Your task to perform on an android device: open chrome privacy settings Image 0: 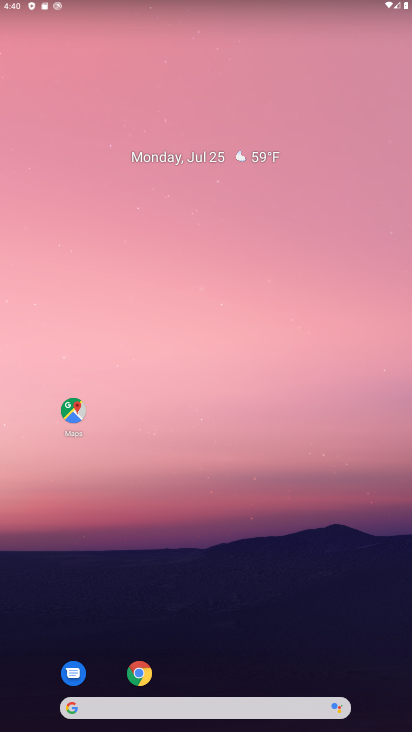
Step 0: drag from (324, 634) to (320, 154)
Your task to perform on an android device: open chrome privacy settings Image 1: 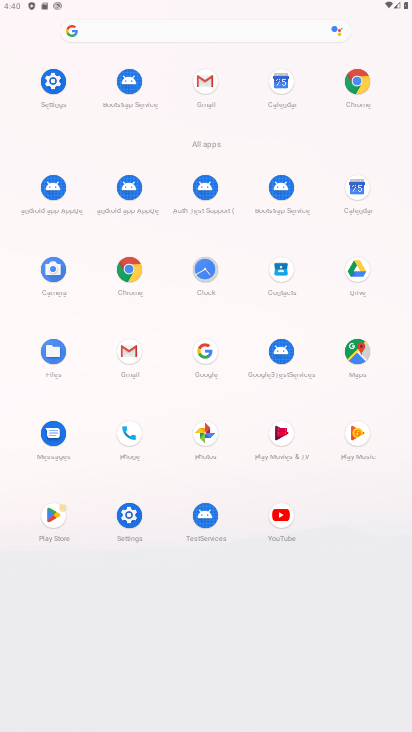
Step 1: click (124, 268)
Your task to perform on an android device: open chrome privacy settings Image 2: 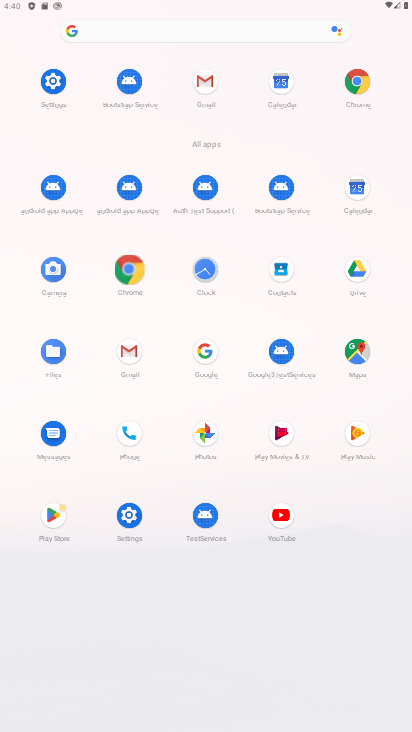
Step 2: click (127, 271)
Your task to perform on an android device: open chrome privacy settings Image 3: 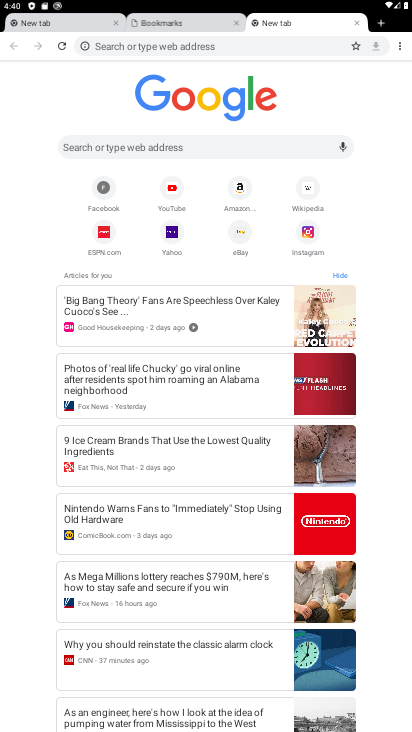
Step 3: drag from (398, 38) to (296, 218)
Your task to perform on an android device: open chrome privacy settings Image 4: 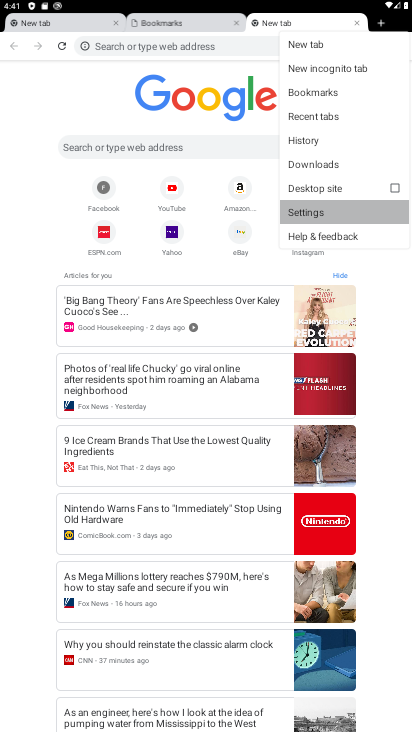
Step 4: click (297, 219)
Your task to perform on an android device: open chrome privacy settings Image 5: 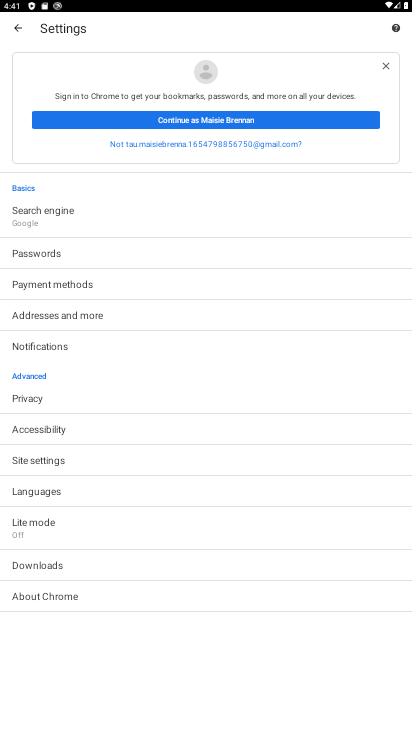
Step 5: task complete